Your task to perform on an android device: open app "Walmart Shopping & Grocery" (install if not already installed) Image 0: 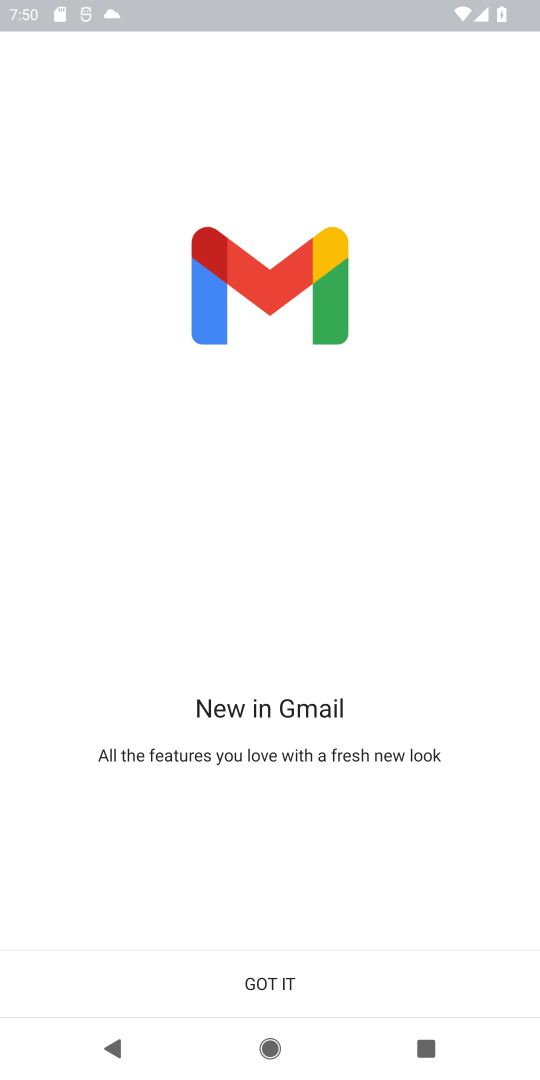
Step 0: press home button
Your task to perform on an android device: open app "Walmart Shopping & Grocery" (install if not already installed) Image 1: 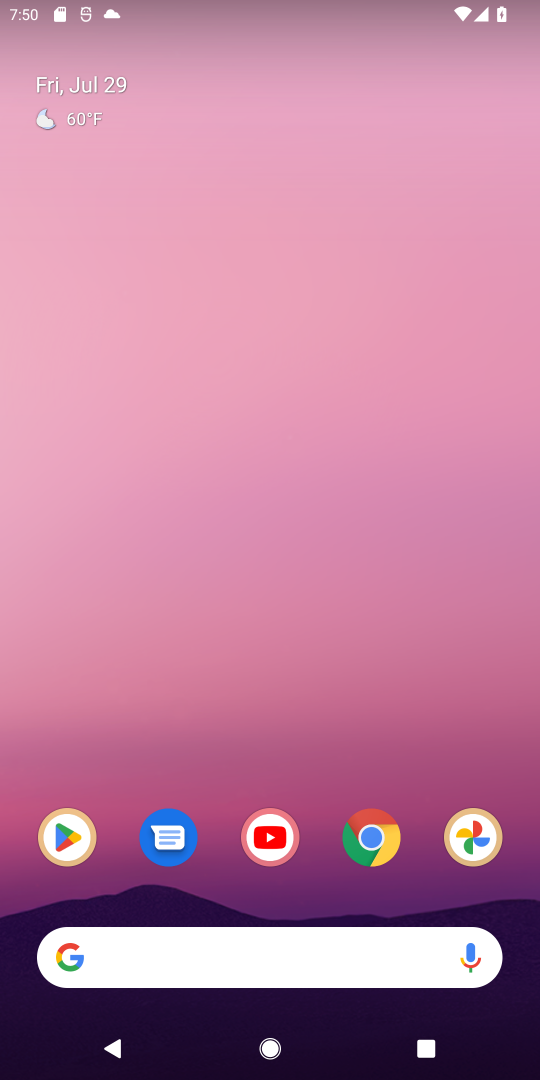
Step 1: click (73, 830)
Your task to perform on an android device: open app "Walmart Shopping & Grocery" (install if not already installed) Image 2: 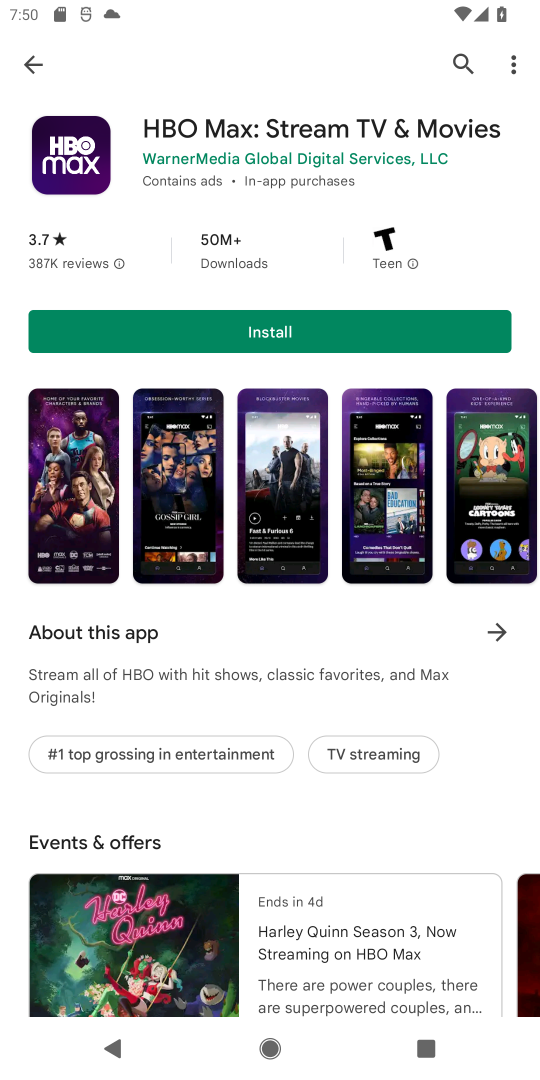
Step 2: click (462, 66)
Your task to perform on an android device: open app "Walmart Shopping & Grocery" (install if not already installed) Image 3: 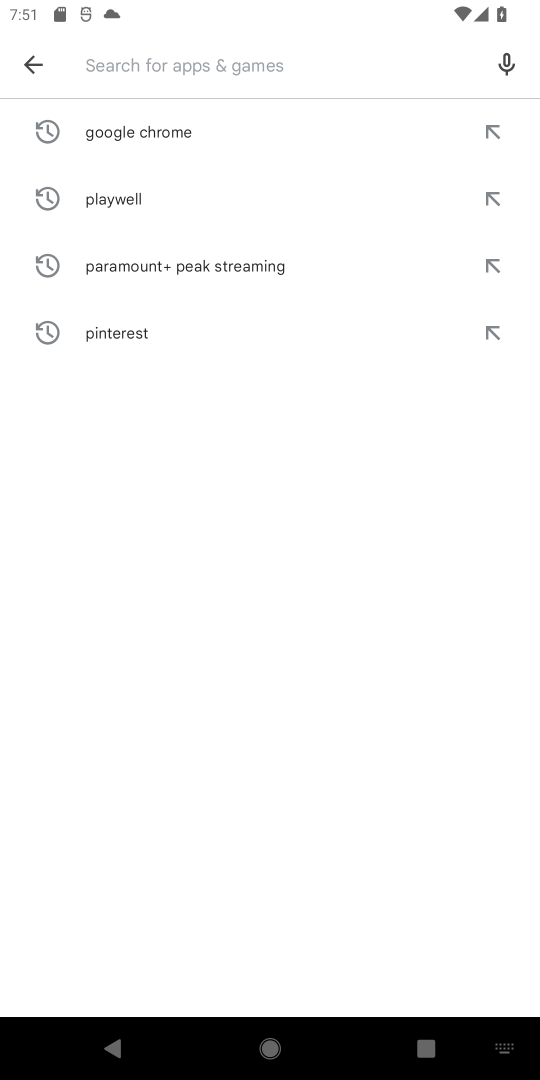
Step 3: type "Walmart Shopping & grocery"
Your task to perform on an android device: open app "Walmart Shopping & Grocery" (install if not already installed) Image 4: 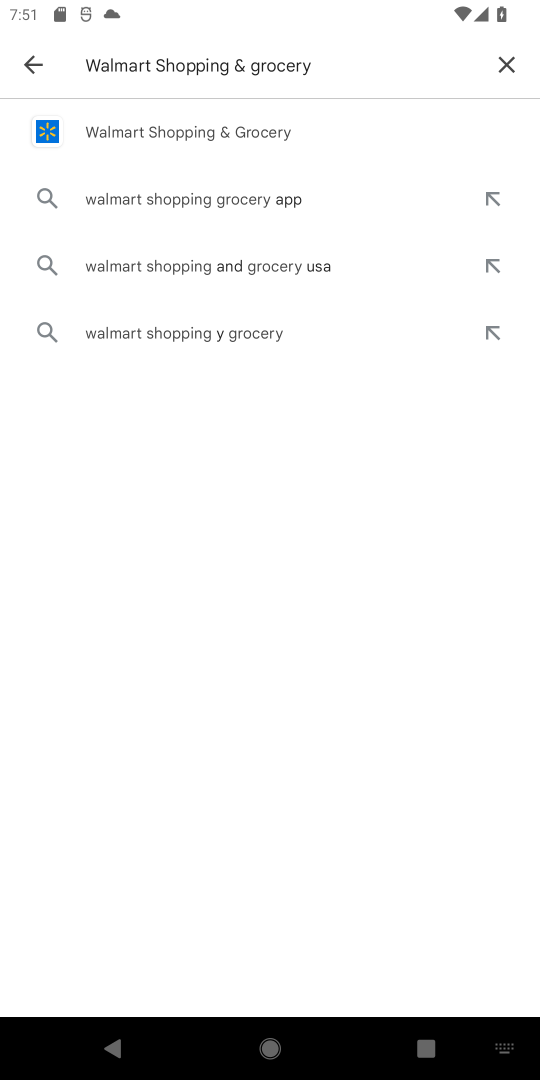
Step 4: click (242, 134)
Your task to perform on an android device: open app "Walmart Shopping & Grocery" (install if not already installed) Image 5: 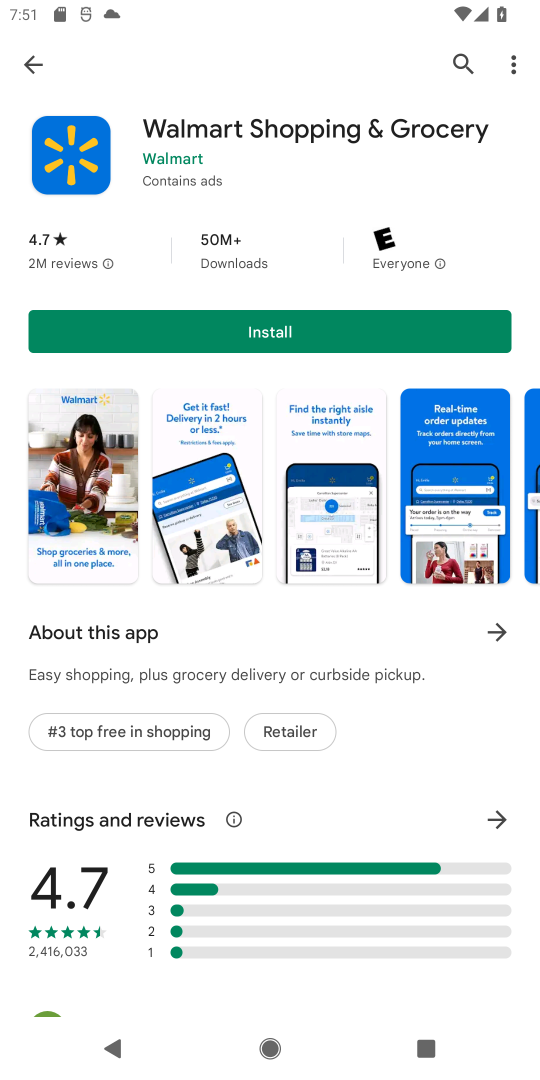
Step 5: click (381, 331)
Your task to perform on an android device: open app "Walmart Shopping & Grocery" (install if not already installed) Image 6: 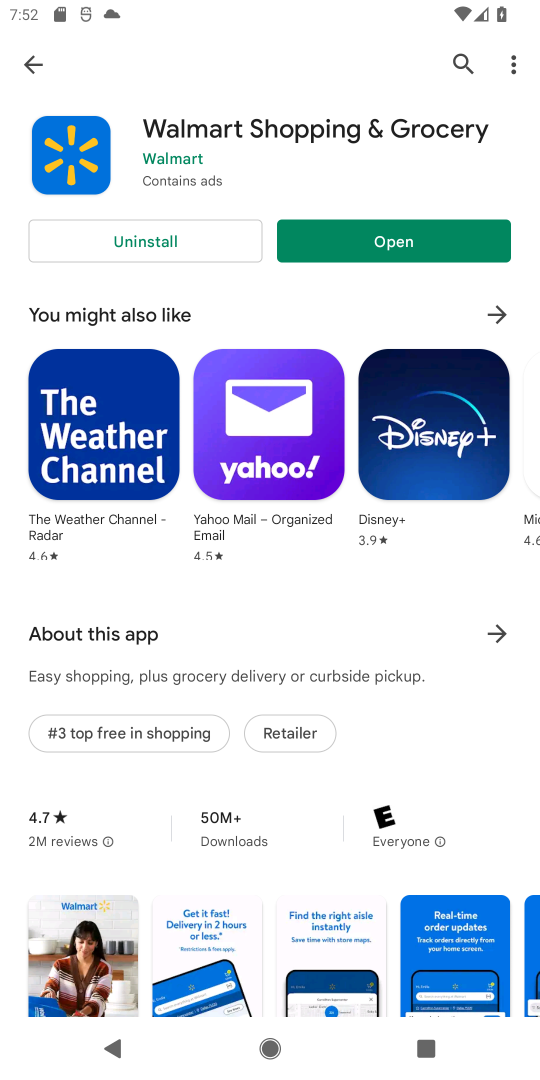
Step 6: click (420, 243)
Your task to perform on an android device: open app "Walmart Shopping & Grocery" (install if not already installed) Image 7: 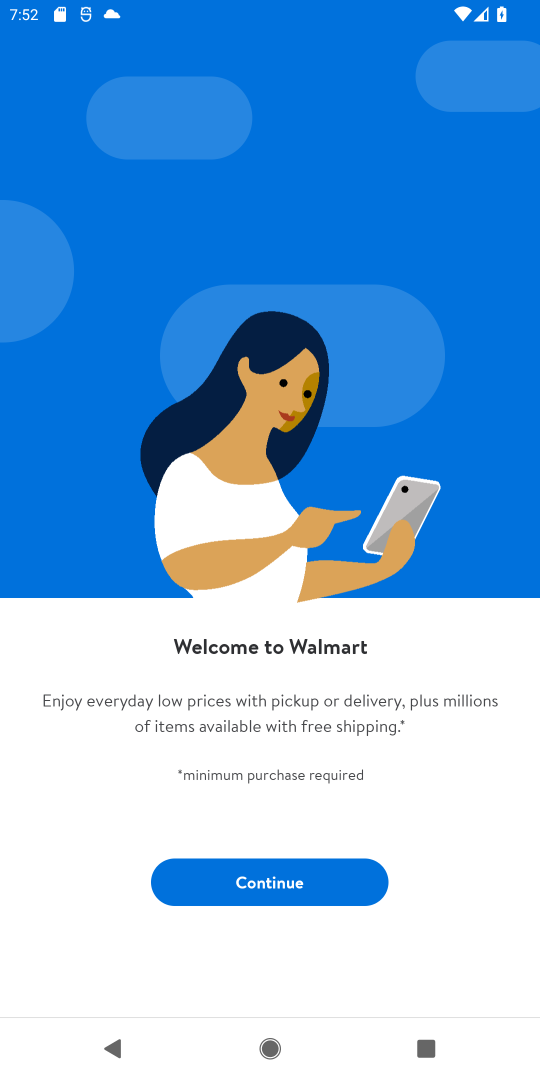
Step 7: task complete